Your task to perform on an android device: What's the weather today? Image 0: 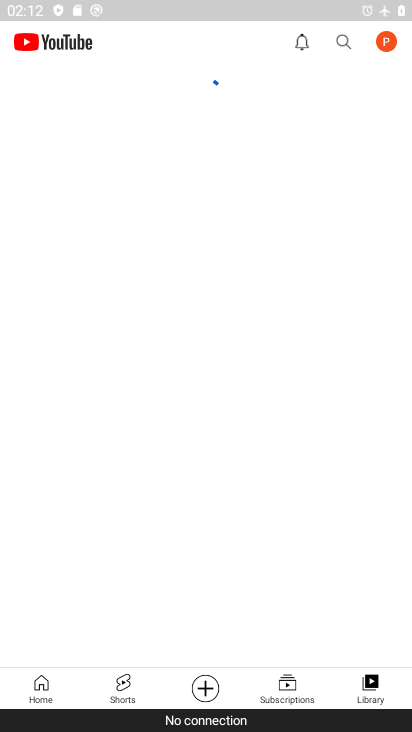
Step 0: press home button
Your task to perform on an android device: What's the weather today? Image 1: 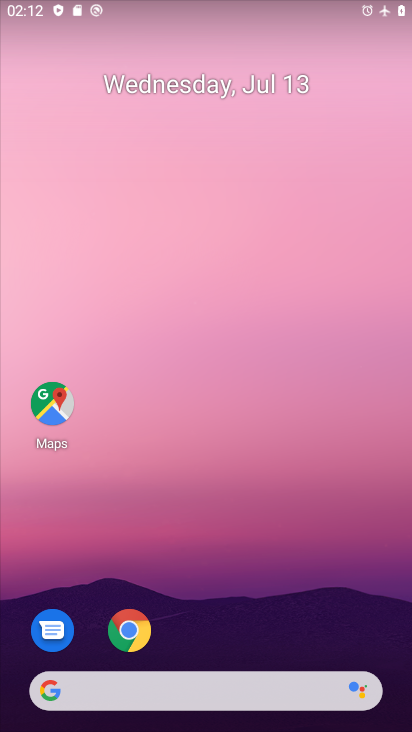
Step 1: drag from (210, 639) to (173, 191)
Your task to perform on an android device: What's the weather today? Image 2: 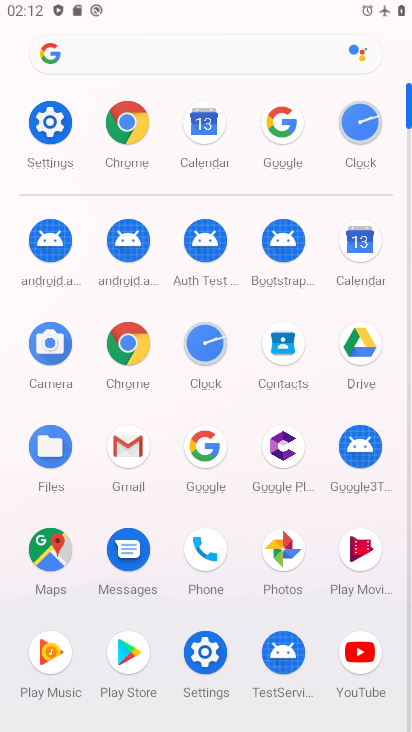
Step 2: click (263, 145)
Your task to perform on an android device: What's the weather today? Image 3: 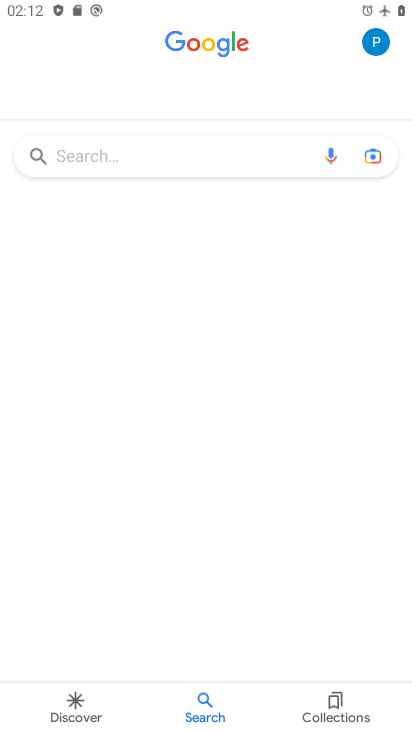
Step 3: click (174, 168)
Your task to perform on an android device: What's the weather today? Image 4: 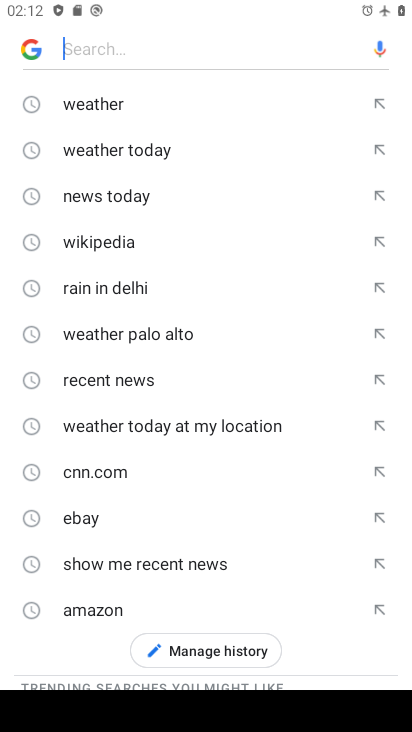
Step 4: click (143, 145)
Your task to perform on an android device: What's the weather today? Image 5: 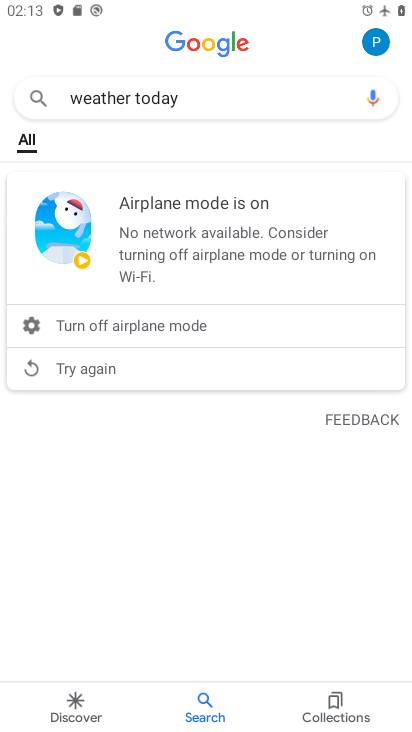
Step 5: task complete